Your task to perform on an android device: open the mobile data screen to see how much data has been used Image 0: 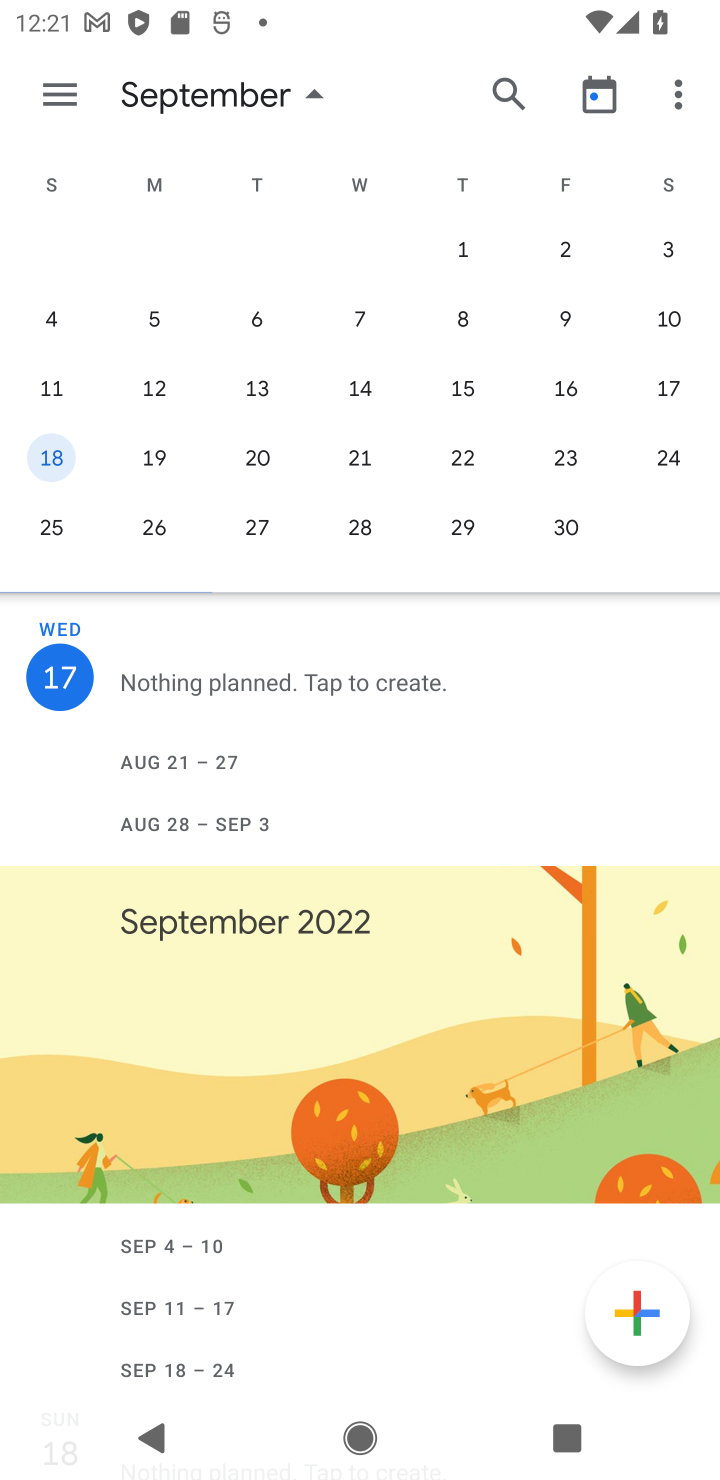
Step 0: press home button
Your task to perform on an android device: open the mobile data screen to see how much data has been used Image 1: 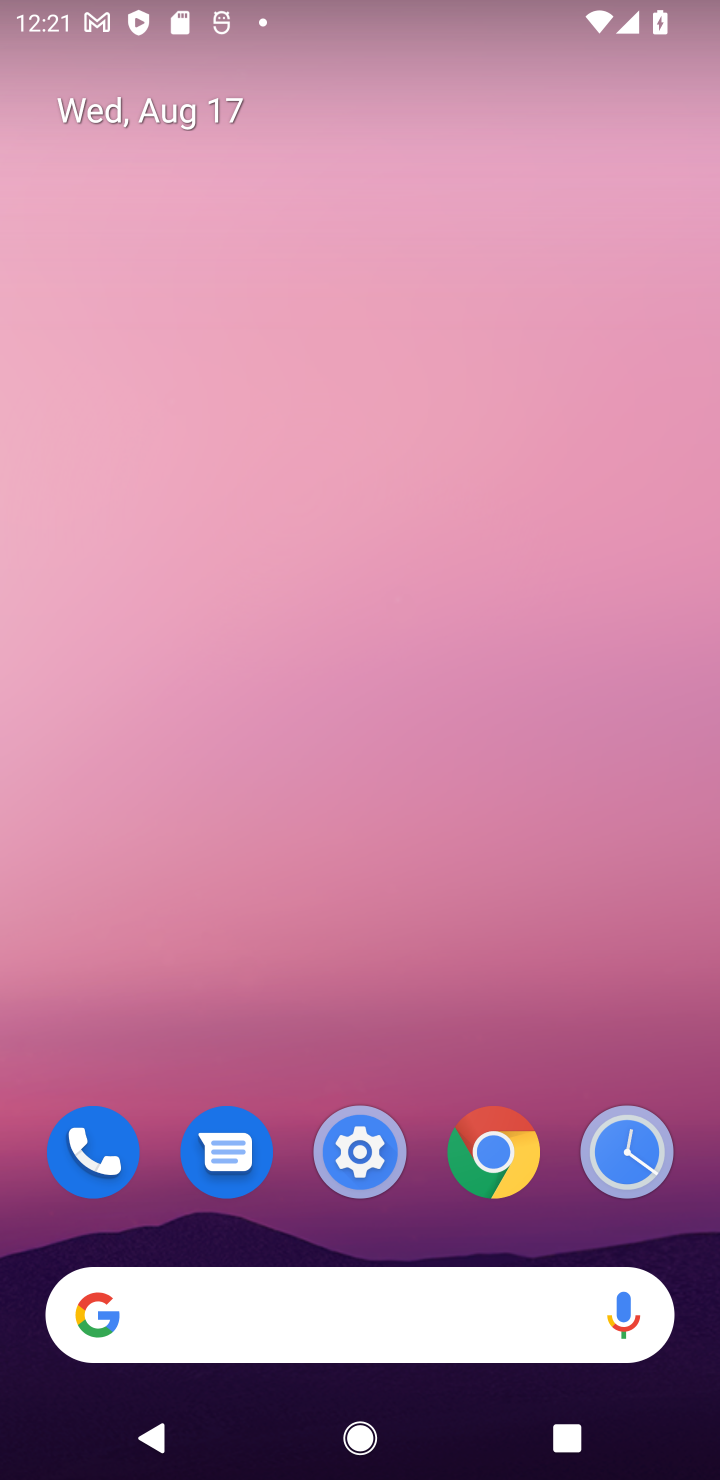
Step 1: drag from (421, 1232) to (118, 91)
Your task to perform on an android device: open the mobile data screen to see how much data has been used Image 2: 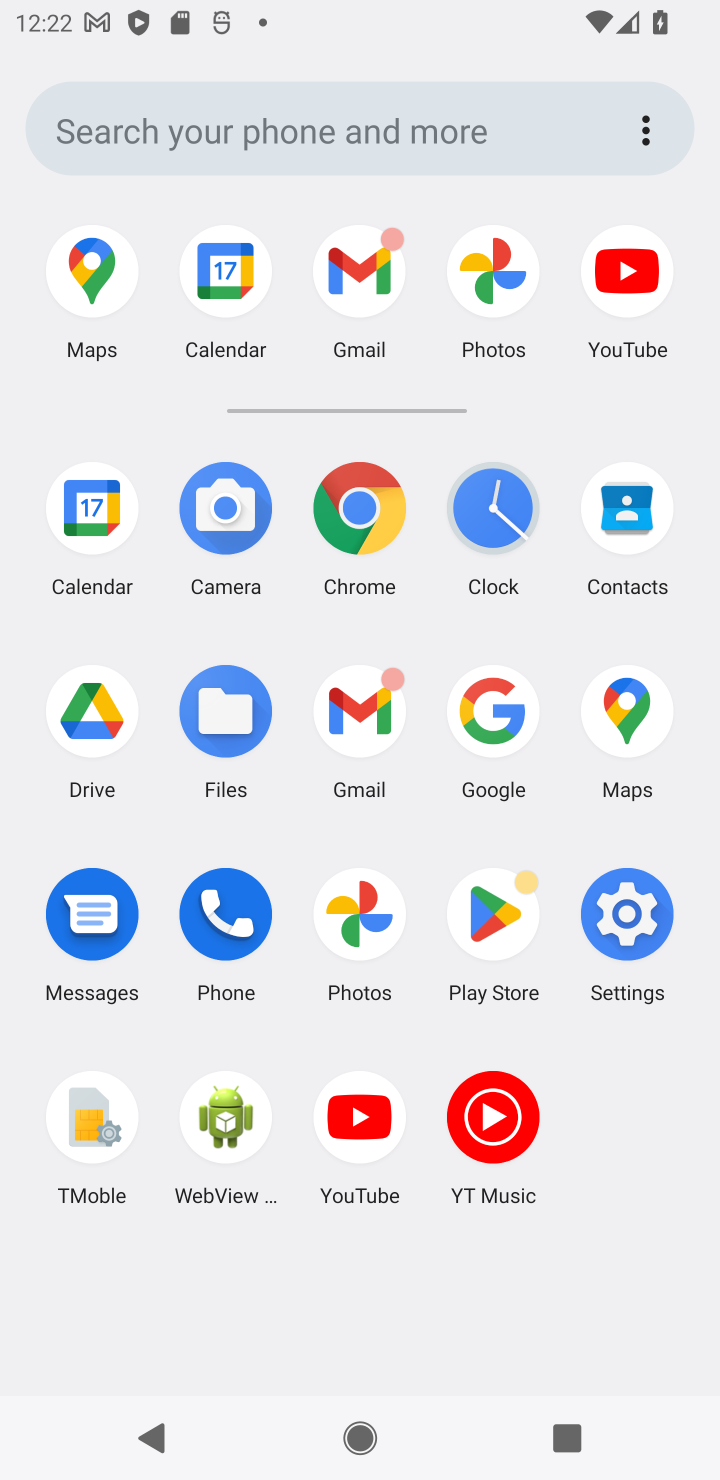
Step 2: click (609, 911)
Your task to perform on an android device: open the mobile data screen to see how much data has been used Image 3: 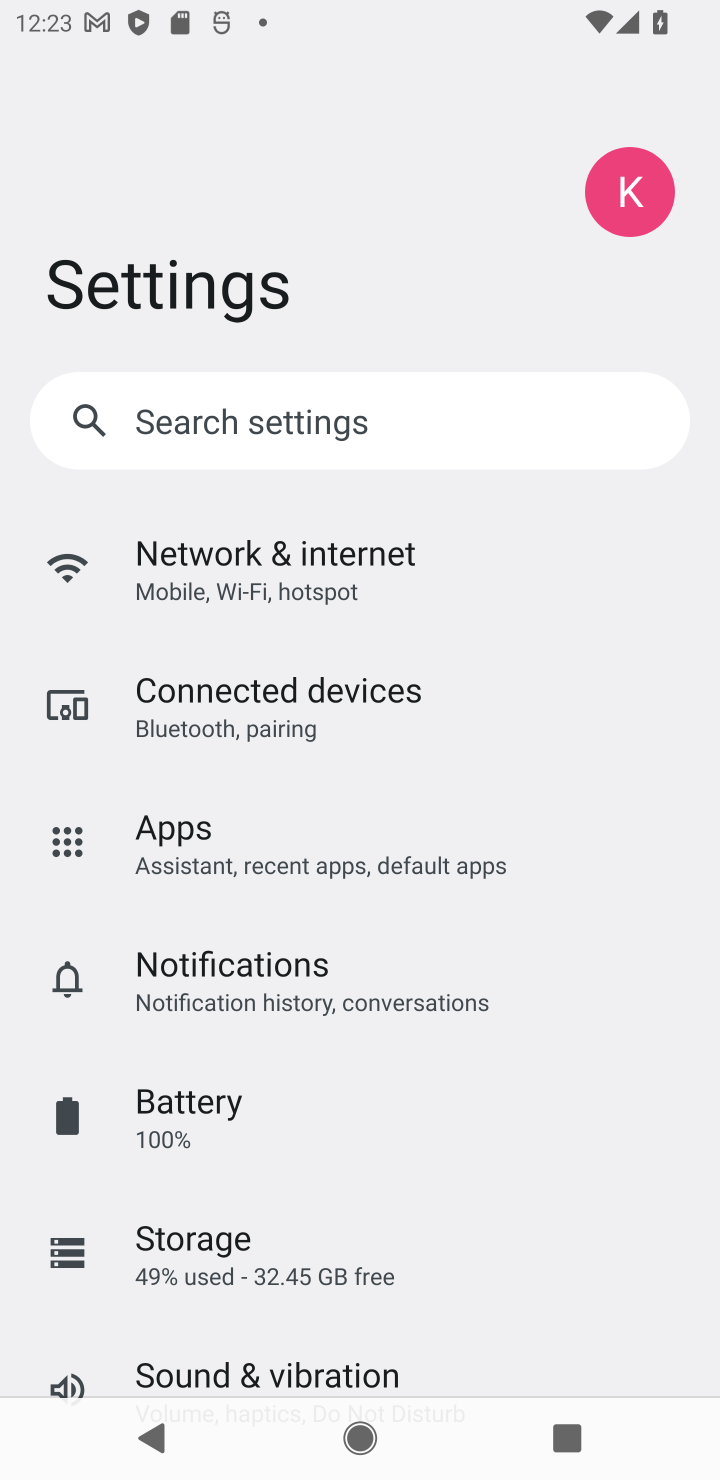
Step 3: task complete